Your task to perform on an android device: turn off notifications settings in the gmail app Image 0: 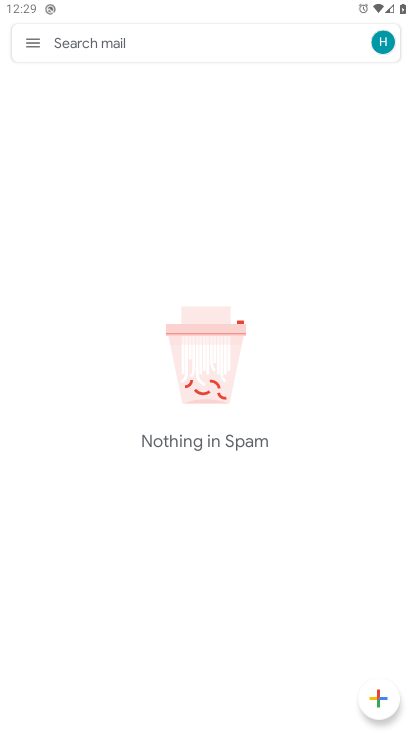
Step 0: press home button
Your task to perform on an android device: turn off notifications settings in the gmail app Image 1: 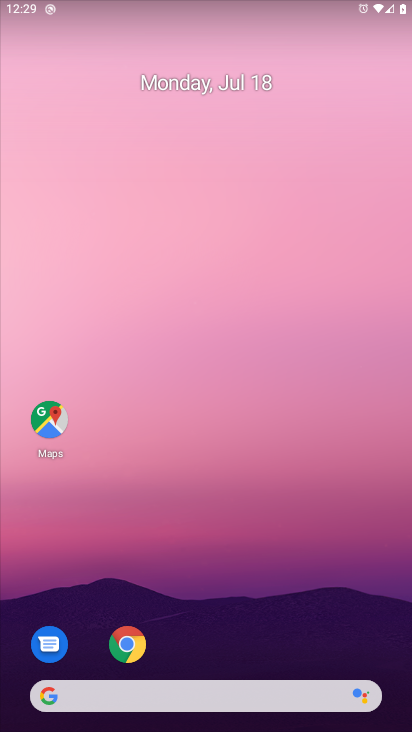
Step 1: drag from (277, 625) to (394, 79)
Your task to perform on an android device: turn off notifications settings in the gmail app Image 2: 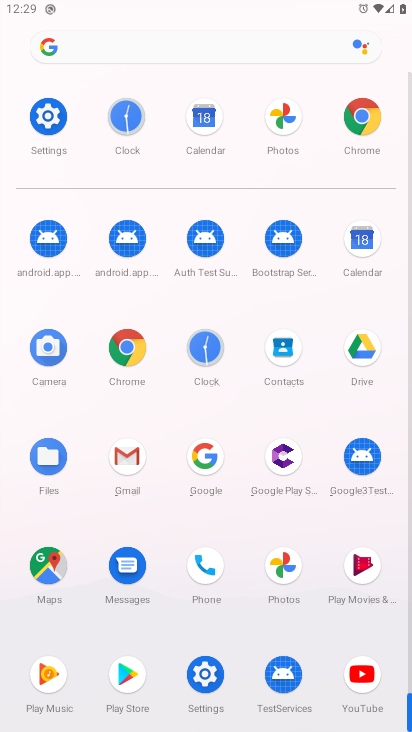
Step 2: click (133, 444)
Your task to perform on an android device: turn off notifications settings in the gmail app Image 3: 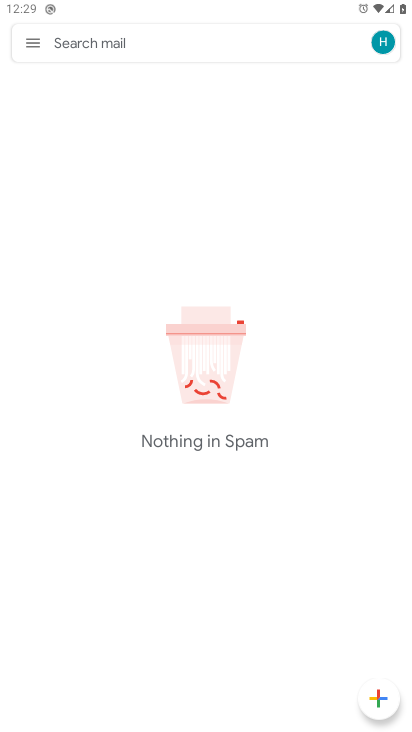
Step 3: click (380, 48)
Your task to perform on an android device: turn off notifications settings in the gmail app Image 4: 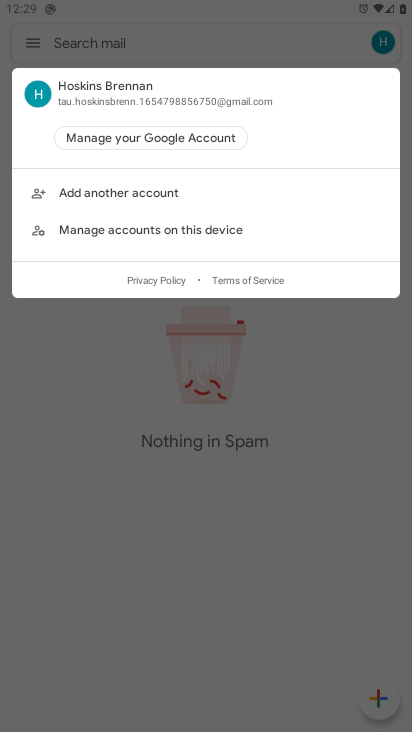
Step 4: click (93, 87)
Your task to perform on an android device: turn off notifications settings in the gmail app Image 5: 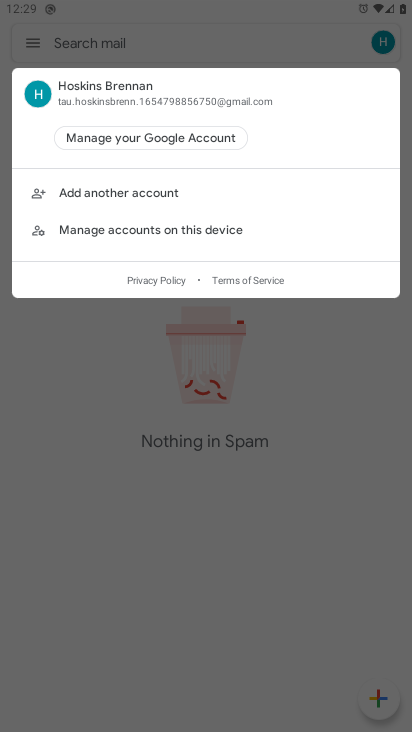
Step 5: click (39, 90)
Your task to perform on an android device: turn off notifications settings in the gmail app Image 6: 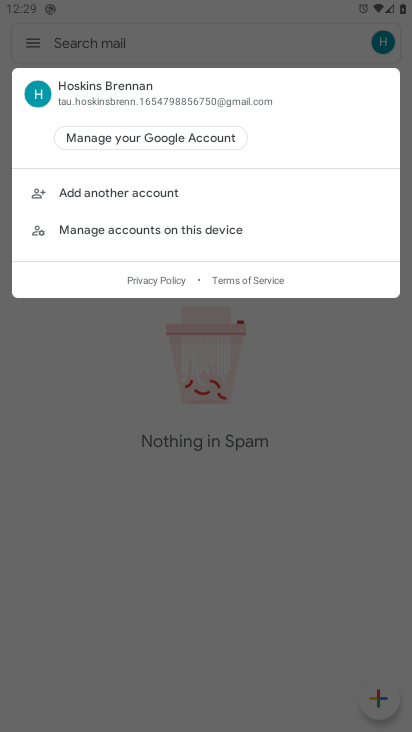
Step 6: click (388, 34)
Your task to perform on an android device: turn off notifications settings in the gmail app Image 7: 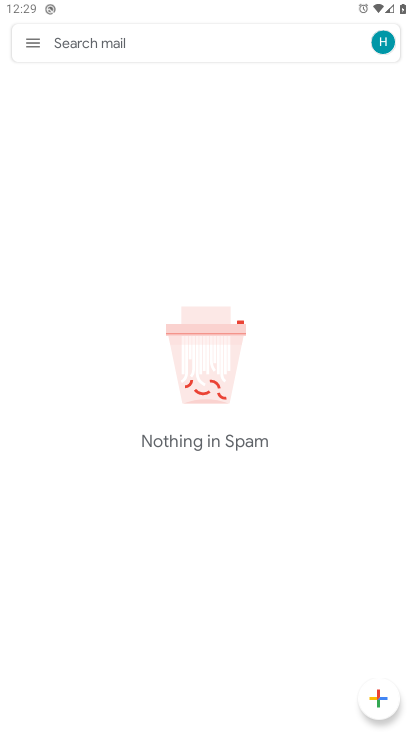
Step 7: click (382, 37)
Your task to perform on an android device: turn off notifications settings in the gmail app Image 8: 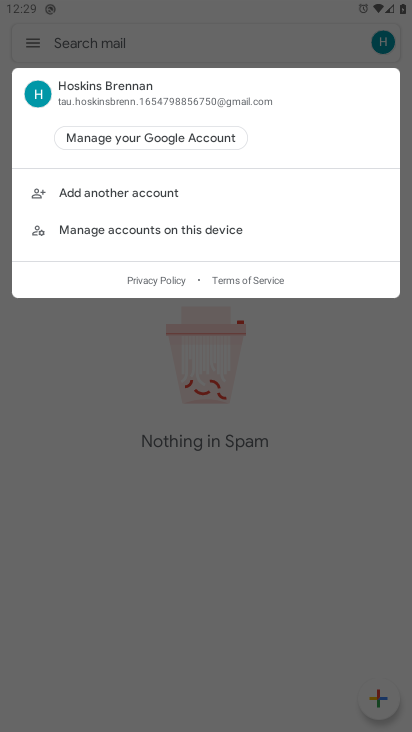
Step 8: click (32, 36)
Your task to perform on an android device: turn off notifications settings in the gmail app Image 9: 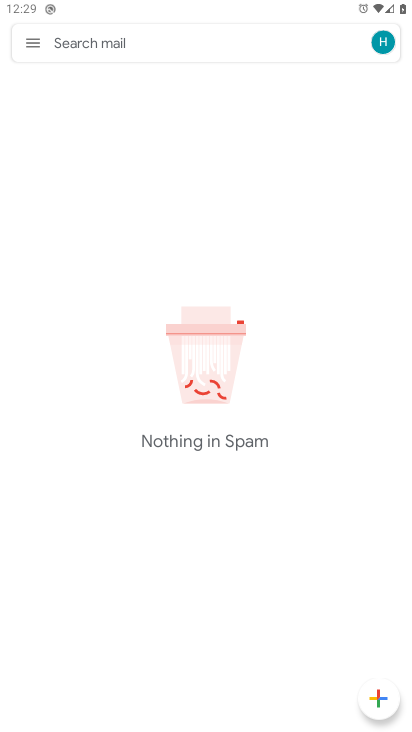
Step 9: click (34, 44)
Your task to perform on an android device: turn off notifications settings in the gmail app Image 10: 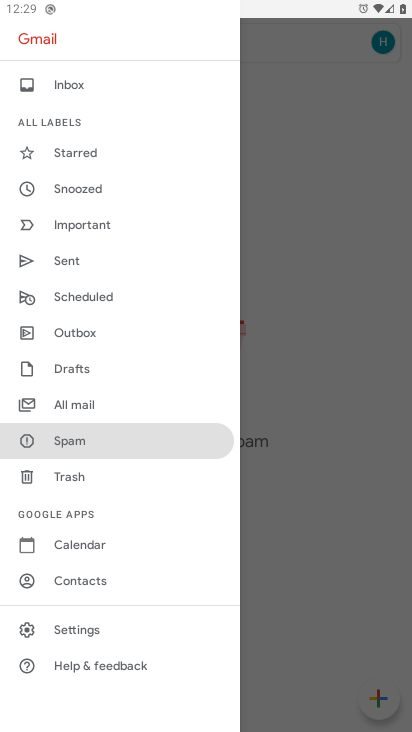
Step 10: click (75, 623)
Your task to perform on an android device: turn off notifications settings in the gmail app Image 11: 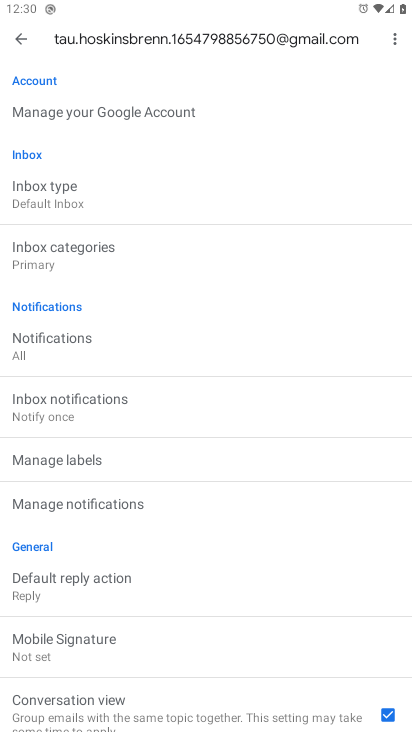
Step 11: click (89, 501)
Your task to perform on an android device: turn off notifications settings in the gmail app Image 12: 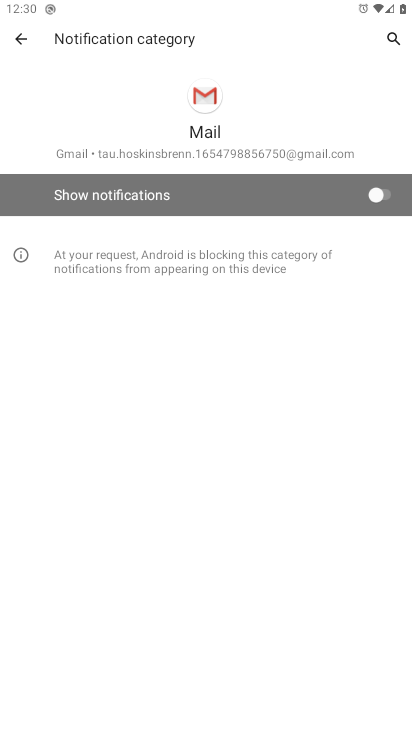
Step 12: task complete